Your task to perform on an android device: What is the capital of Switzerland? Image 0: 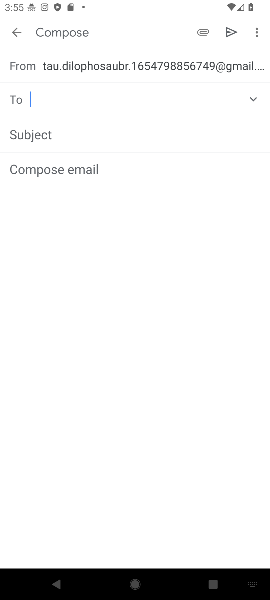
Step 0: press home button
Your task to perform on an android device: What is the capital of Switzerland? Image 1: 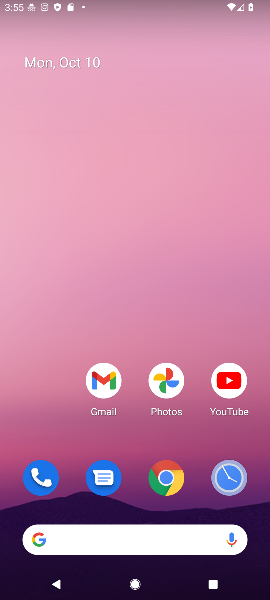
Step 1: click (171, 476)
Your task to perform on an android device: What is the capital of Switzerland? Image 2: 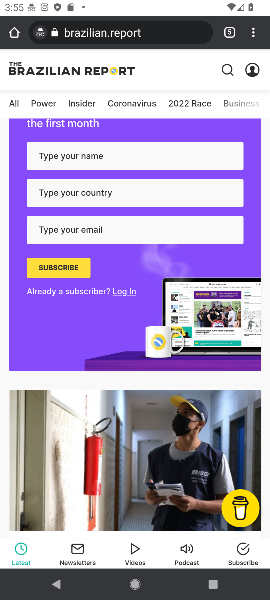
Step 2: click (116, 27)
Your task to perform on an android device: What is the capital of Switzerland? Image 3: 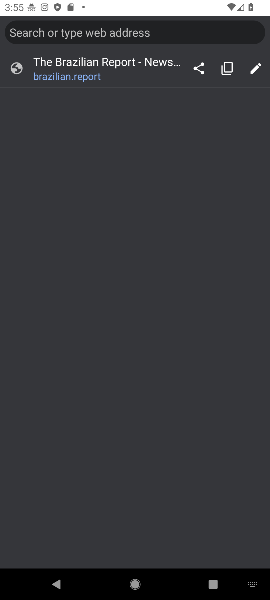
Step 3: type "What is the capital of Switzerland?"
Your task to perform on an android device: What is the capital of Switzerland? Image 4: 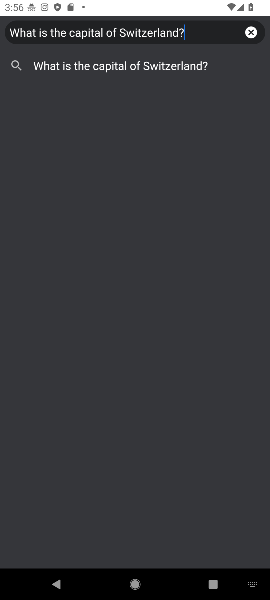
Step 4: click (120, 72)
Your task to perform on an android device: What is the capital of Switzerland? Image 5: 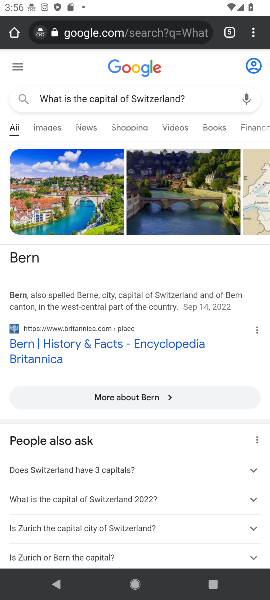
Step 5: task complete